Your task to perform on an android device: change keyboard looks Image 0: 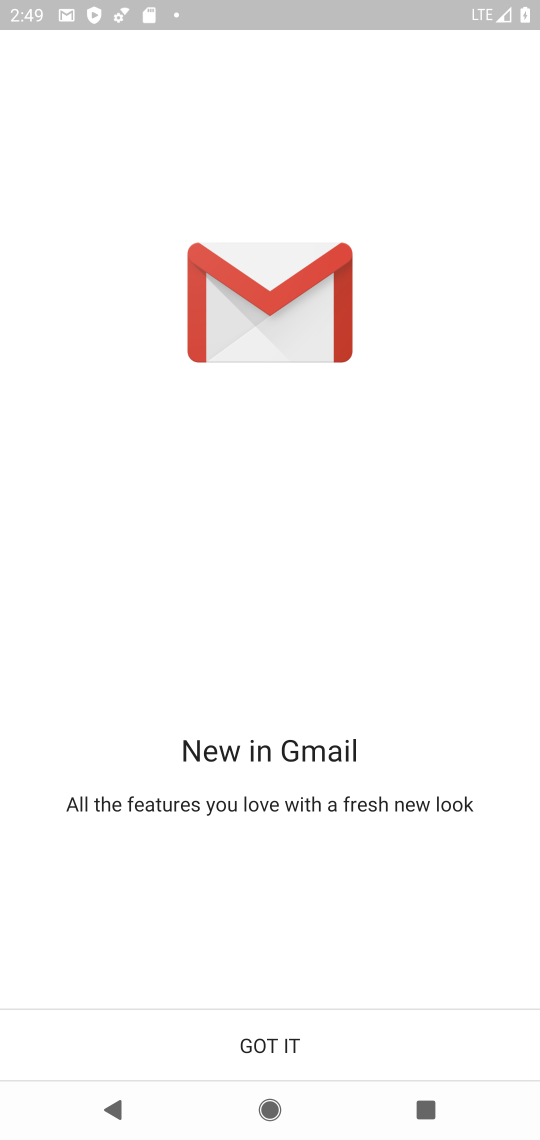
Step 0: press home button
Your task to perform on an android device: change keyboard looks Image 1: 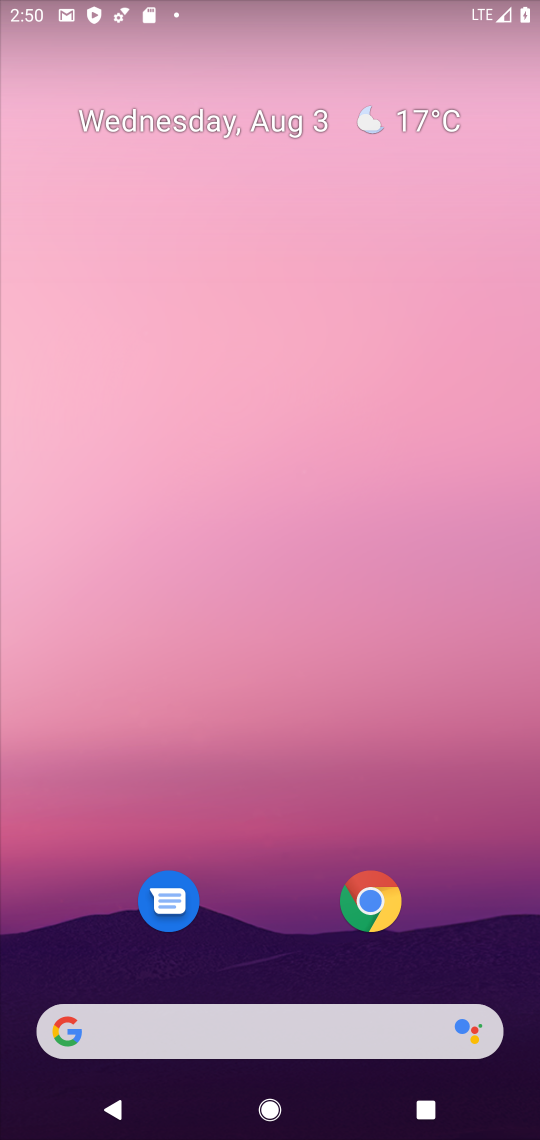
Step 1: drag from (285, 1042) to (295, 571)
Your task to perform on an android device: change keyboard looks Image 2: 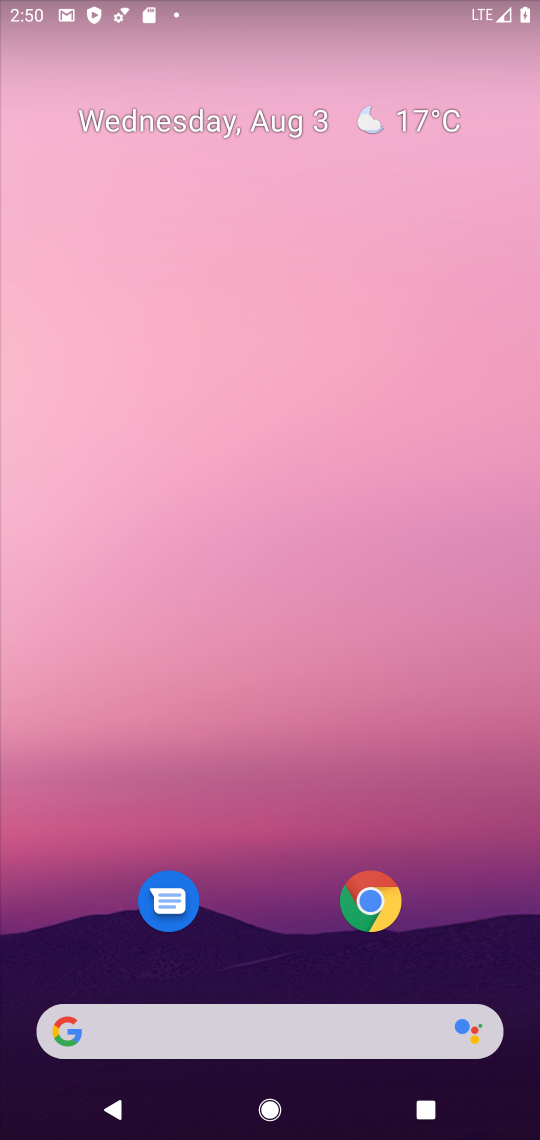
Step 2: drag from (246, 1065) to (300, 623)
Your task to perform on an android device: change keyboard looks Image 3: 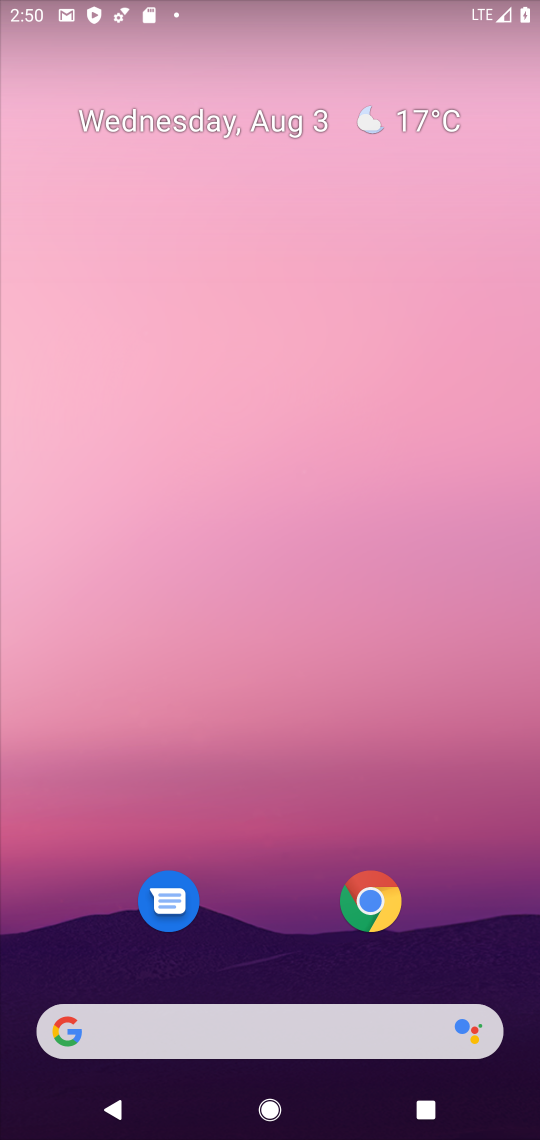
Step 3: drag from (244, 987) to (286, 462)
Your task to perform on an android device: change keyboard looks Image 4: 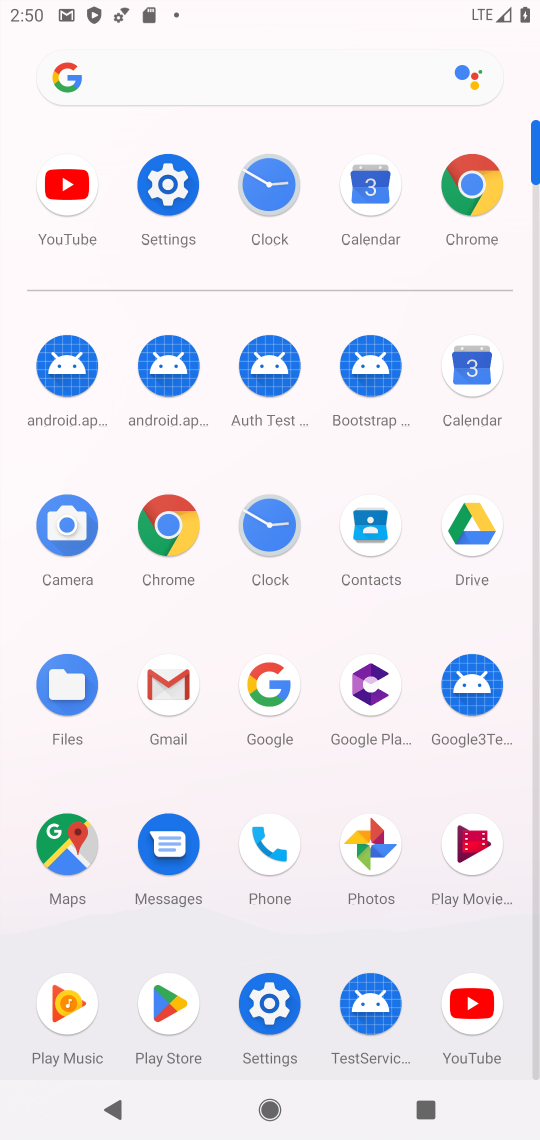
Step 4: click (170, 169)
Your task to perform on an android device: change keyboard looks Image 5: 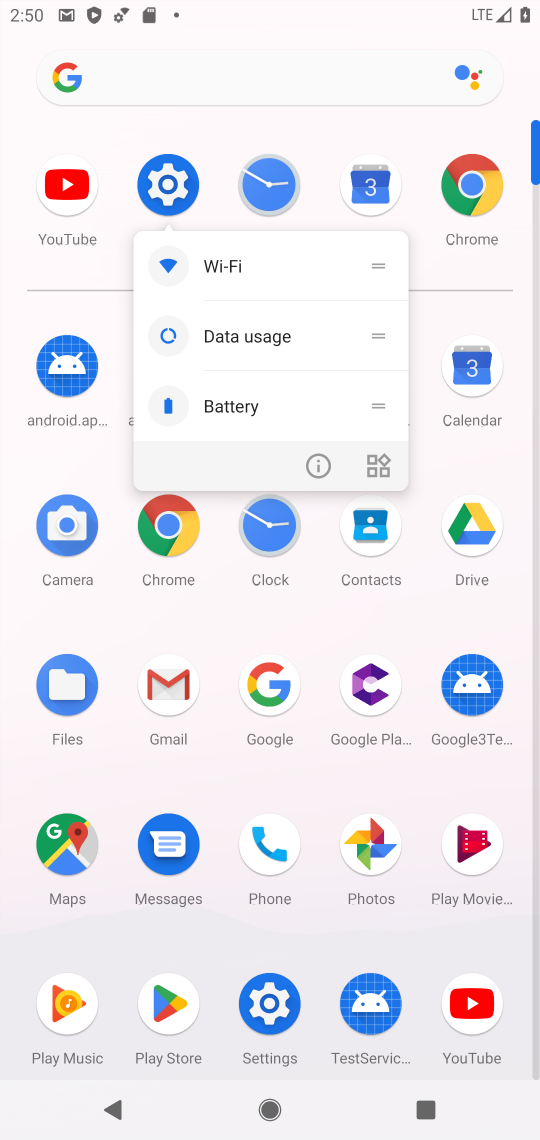
Step 5: click (170, 169)
Your task to perform on an android device: change keyboard looks Image 6: 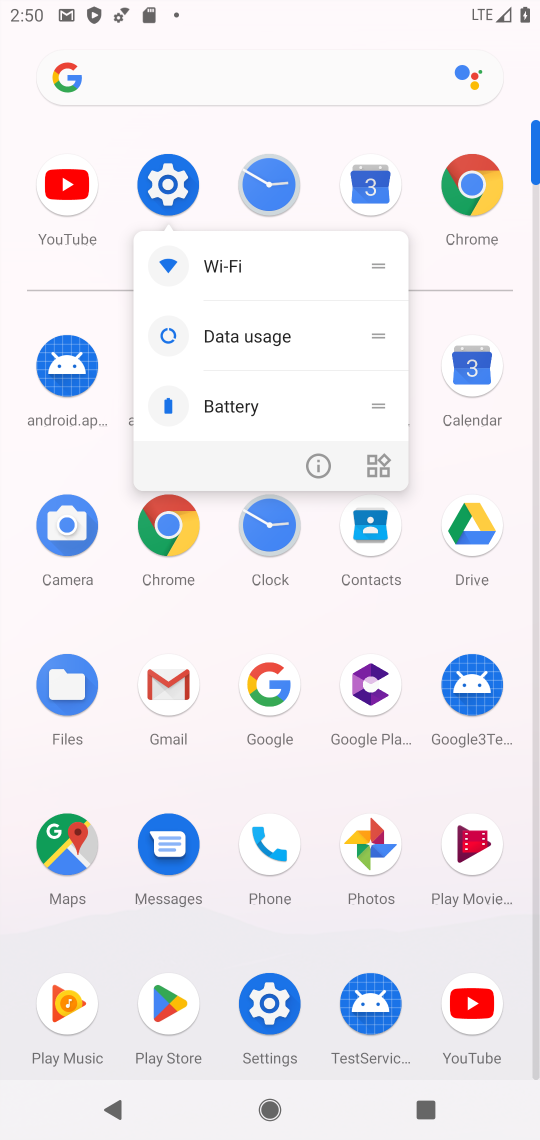
Step 6: click (170, 169)
Your task to perform on an android device: change keyboard looks Image 7: 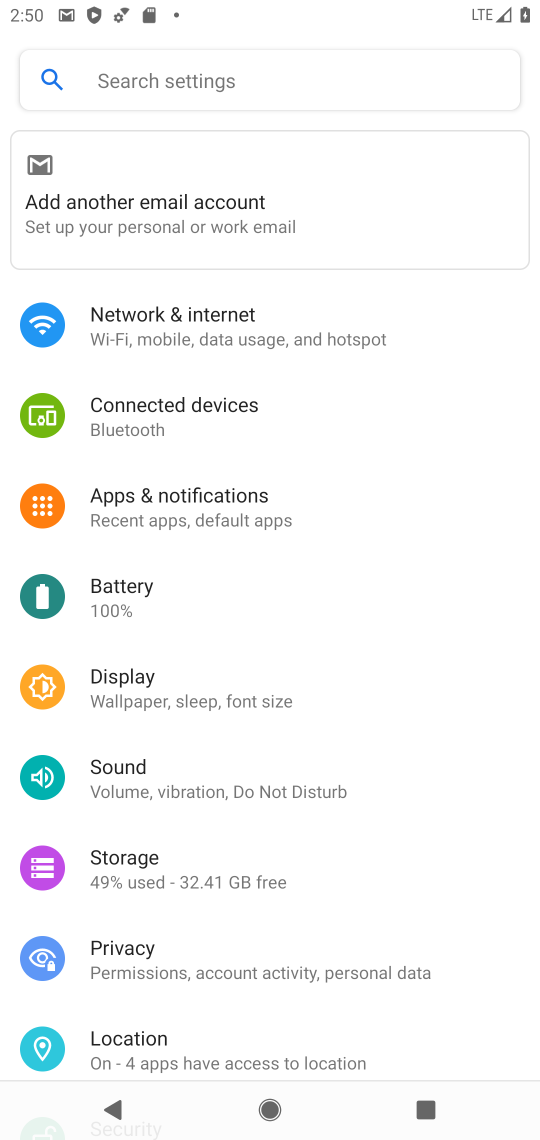
Step 7: drag from (223, 936) to (302, 425)
Your task to perform on an android device: change keyboard looks Image 8: 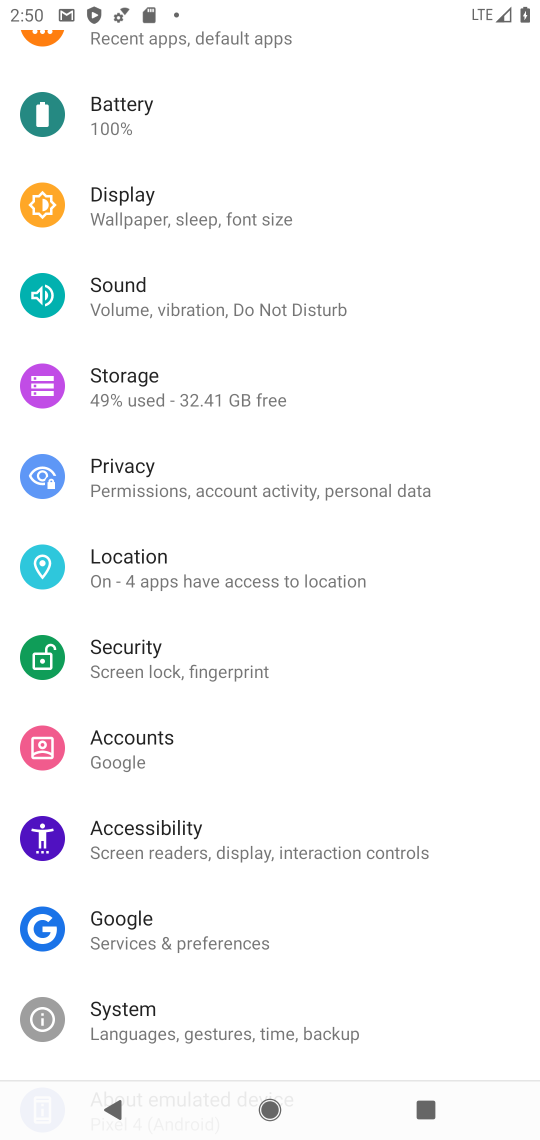
Step 8: drag from (228, 305) to (297, 266)
Your task to perform on an android device: change keyboard looks Image 9: 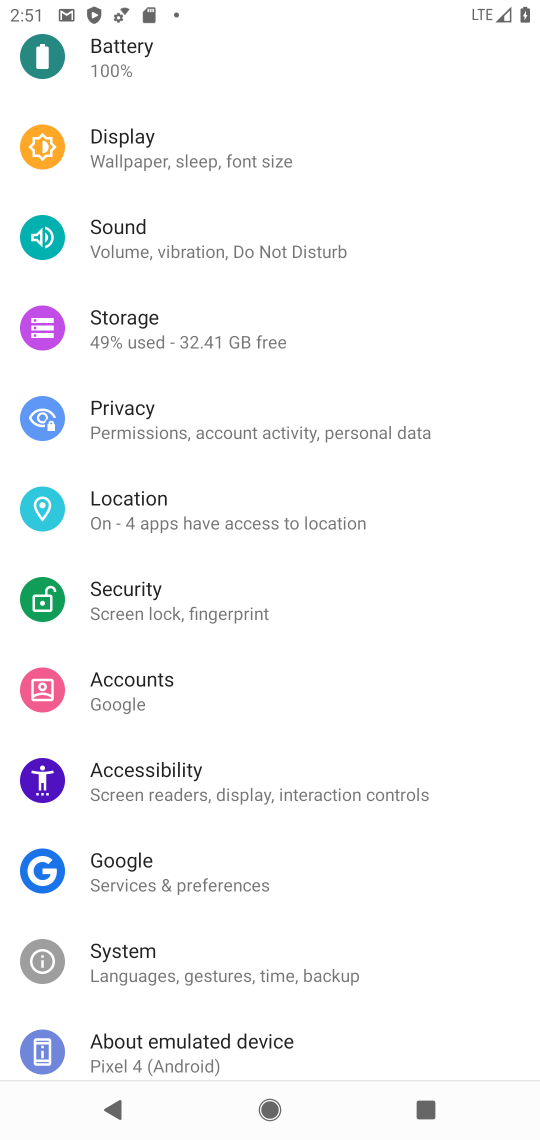
Step 9: click (179, 951)
Your task to perform on an android device: change keyboard looks Image 10: 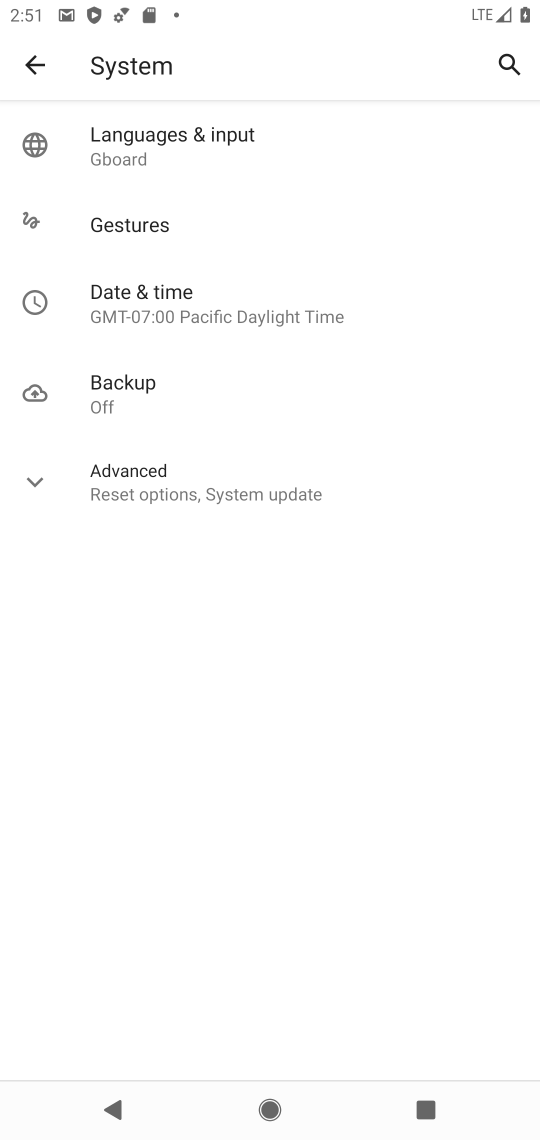
Step 10: click (135, 157)
Your task to perform on an android device: change keyboard looks Image 11: 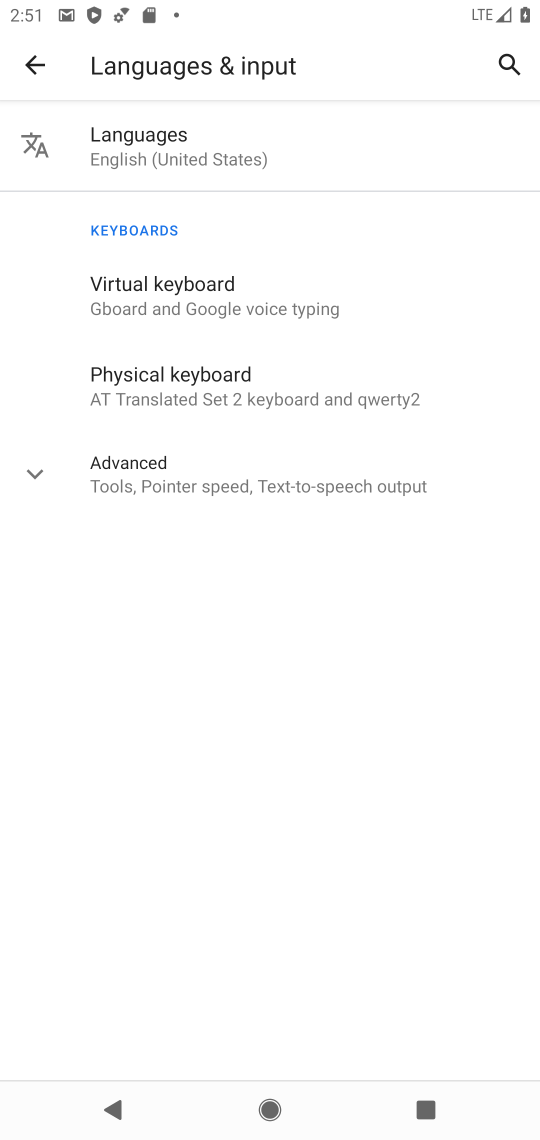
Step 11: click (131, 281)
Your task to perform on an android device: change keyboard looks Image 12: 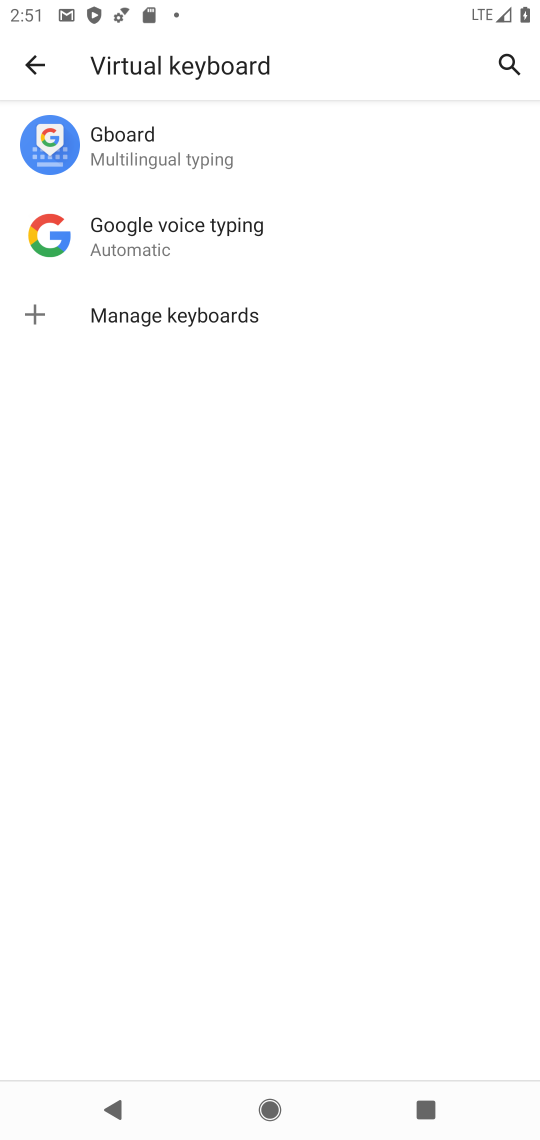
Step 12: click (107, 153)
Your task to perform on an android device: change keyboard looks Image 13: 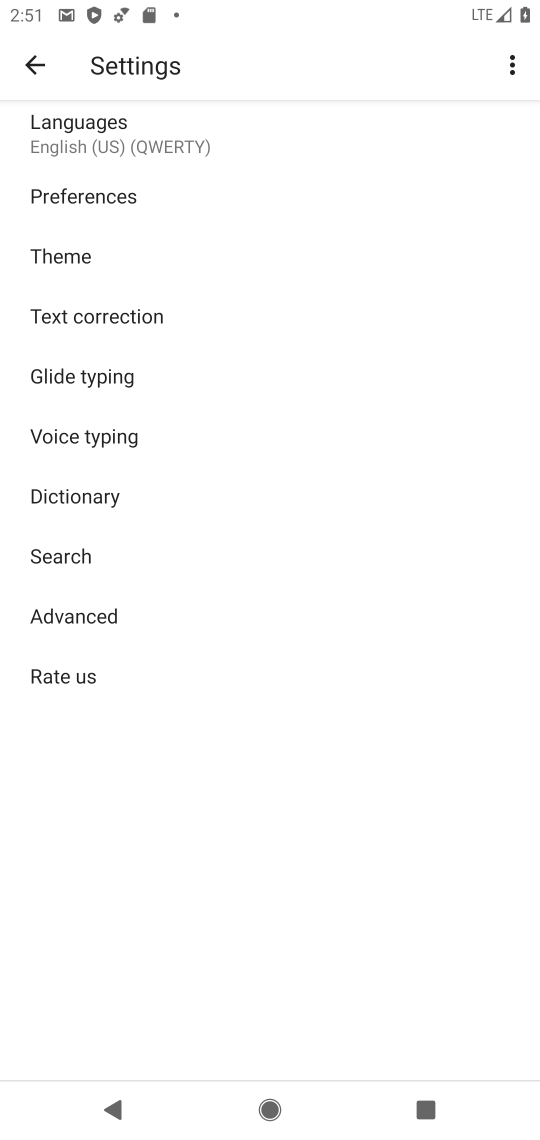
Step 13: click (84, 267)
Your task to perform on an android device: change keyboard looks Image 14: 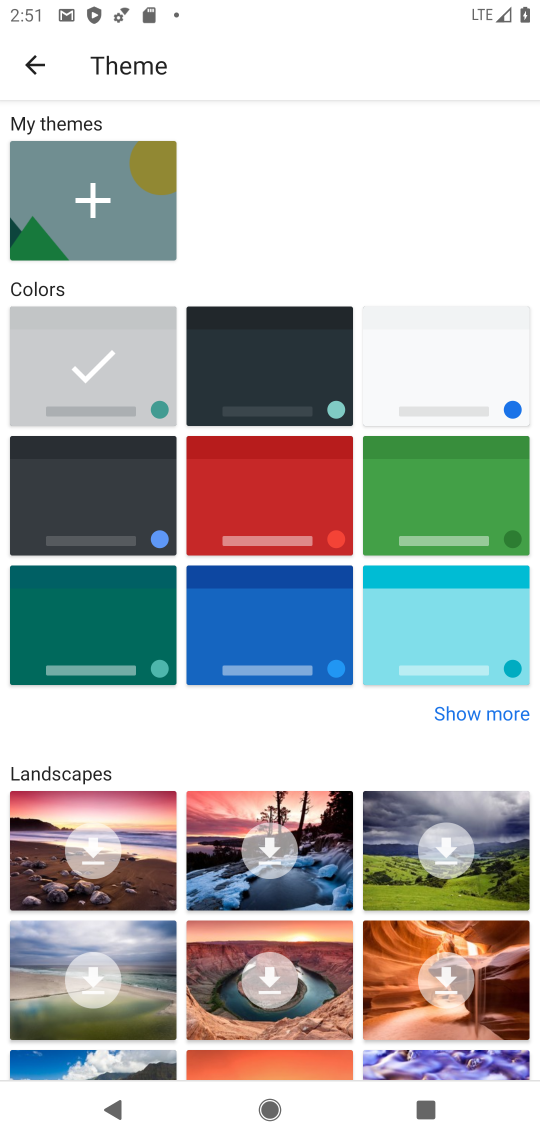
Step 14: click (178, 495)
Your task to perform on an android device: change keyboard looks Image 15: 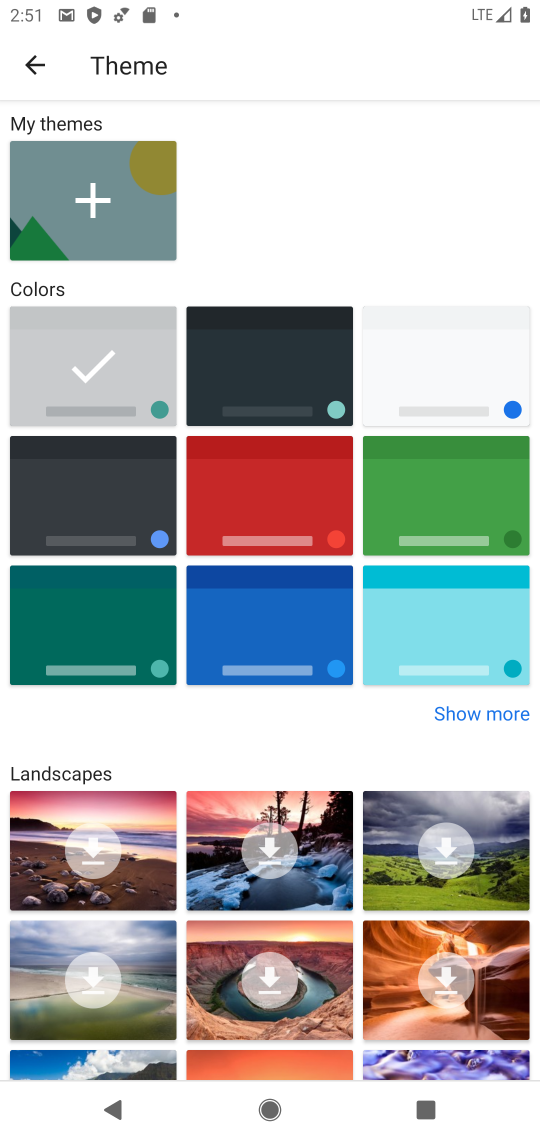
Step 15: click (135, 501)
Your task to perform on an android device: change keyboard looks Image 16: 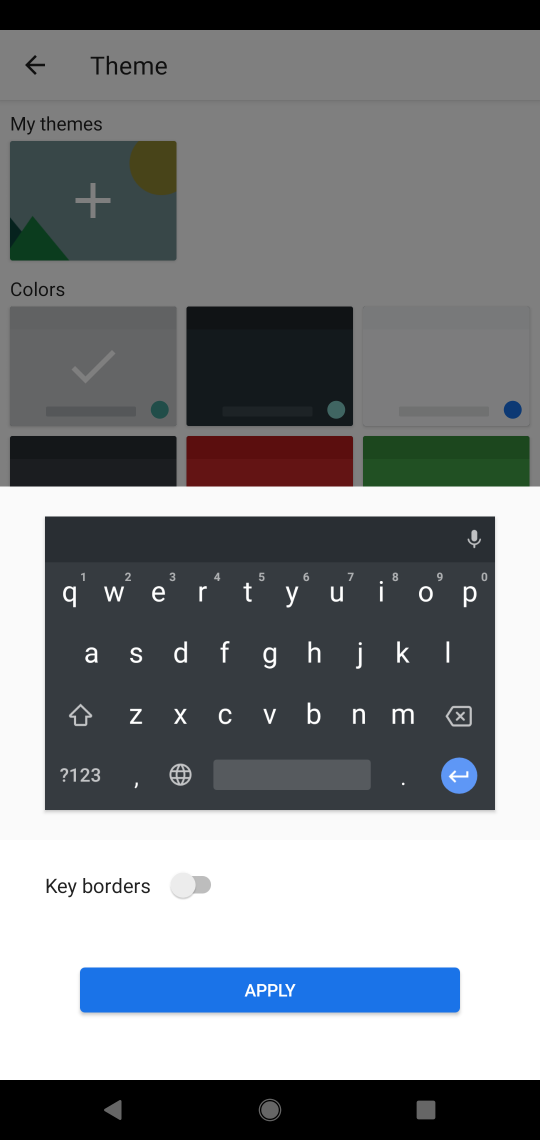
Step 16: click (389, 986)
Your task to perform on an android device: change keyboard looks Image 17: 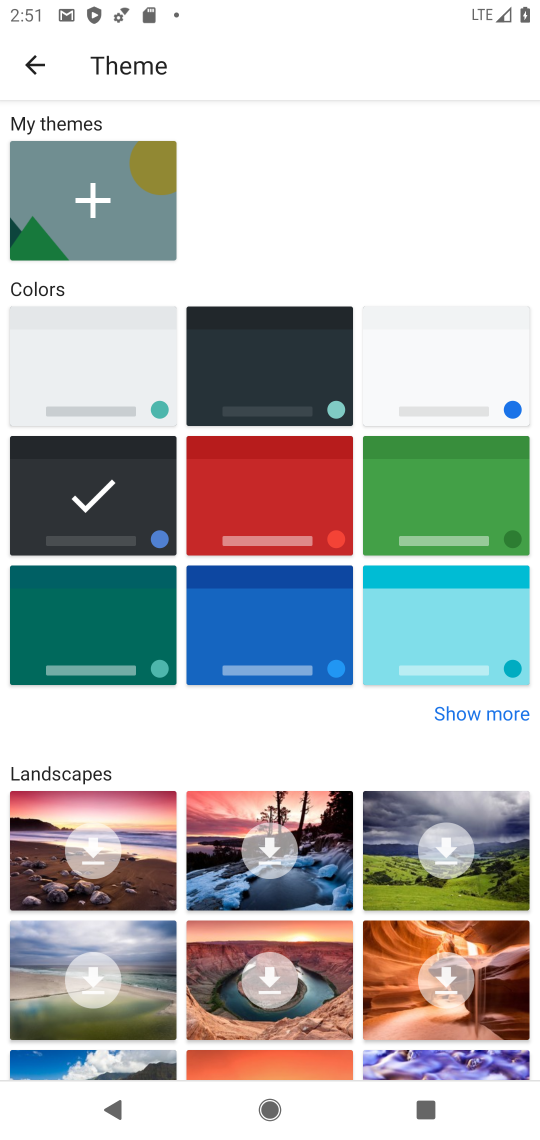
Step 17: task complete